Your task to perform on an android device: Go to ESPN.com Image 0: 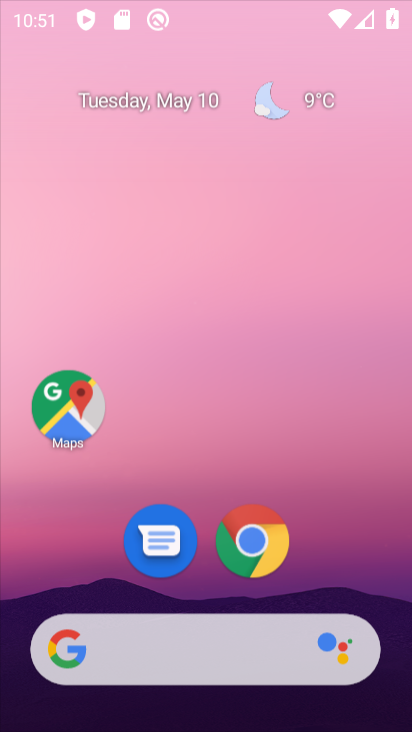
Step 0: click (282, 139)
Your task to perform on an android device: Go to ESPN.com Image 1: 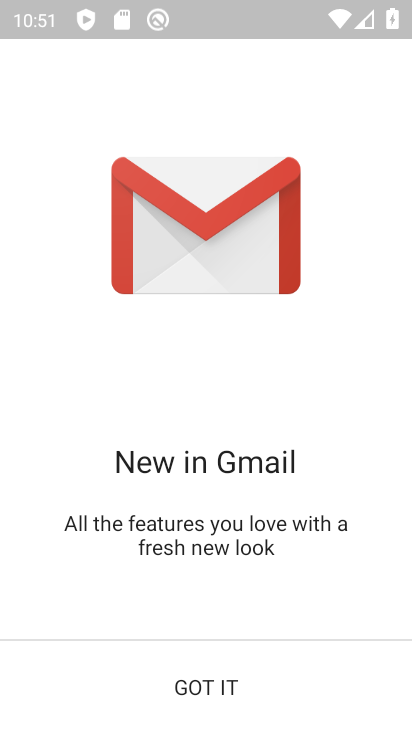
Step 1: press home button
Your task to perform on an android device: Go to ESPN.com Image 2: 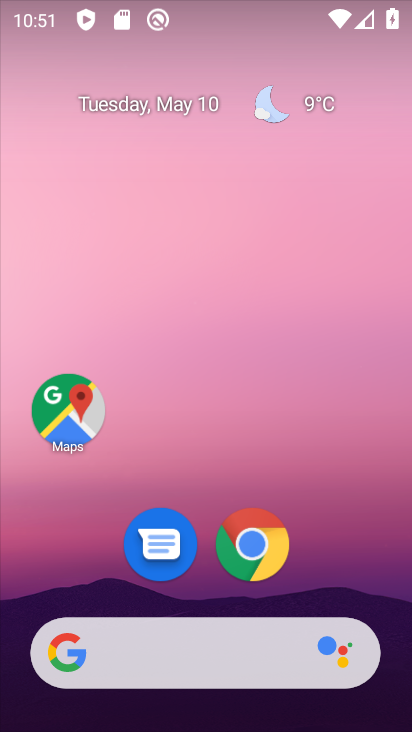
Step 2: click (246, 567)
Your task to perform on an android device: Go to ESPN.com Image 3: 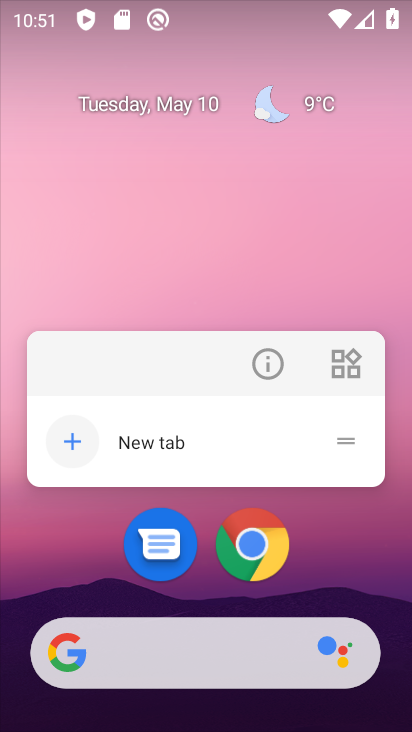
Step 3: click (239, 556)
Your task to perform on an android device: Go to ESPN.com Image 4: 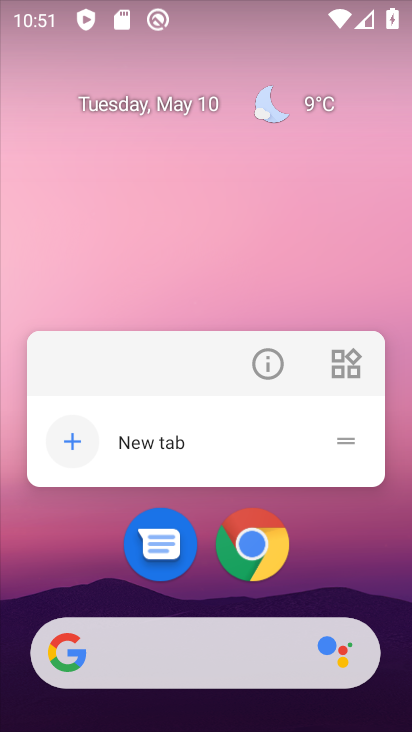
Step 4: click (259, 552)
Your task to perform on an android device: Go to ESPN.com Image 5: 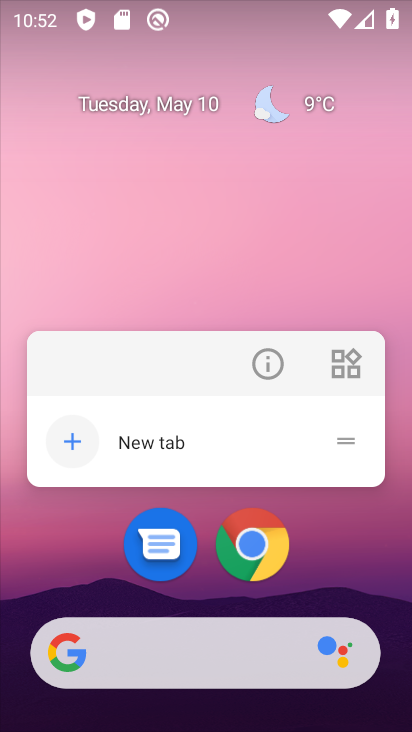
Step 5: click (252, 552)
Your task to perform on an android device: Go to ESPN.com Image 6: 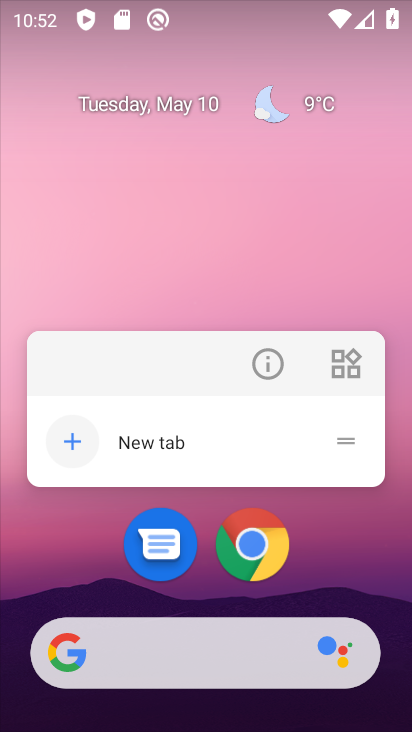
Step 6: click (247, 533)
Your task to perform on an android device: Go to ESPN.com Image 7: 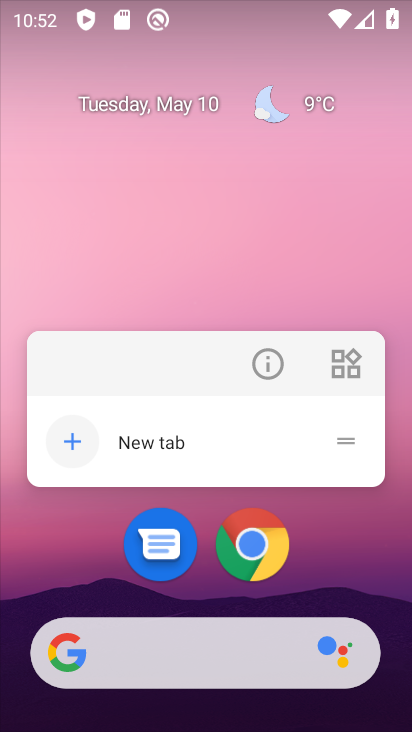
Step 7: click (229, 553)
Your task to perform on an android device: Go to ESPN.com Image 8: 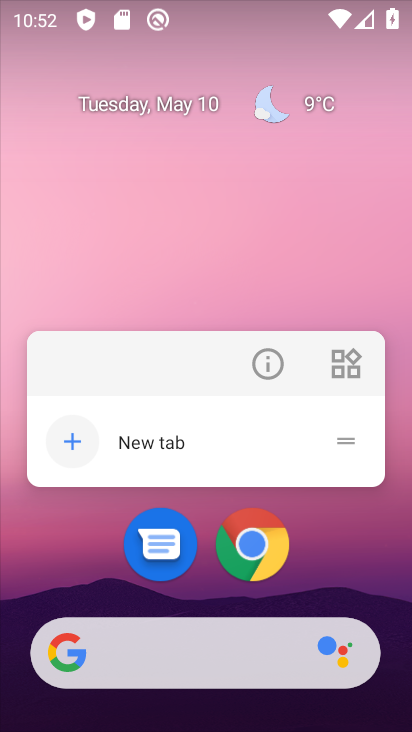
Step 8: click (238, 553)
Your task to perform on an android device: Go to ESPN.com Image 9: 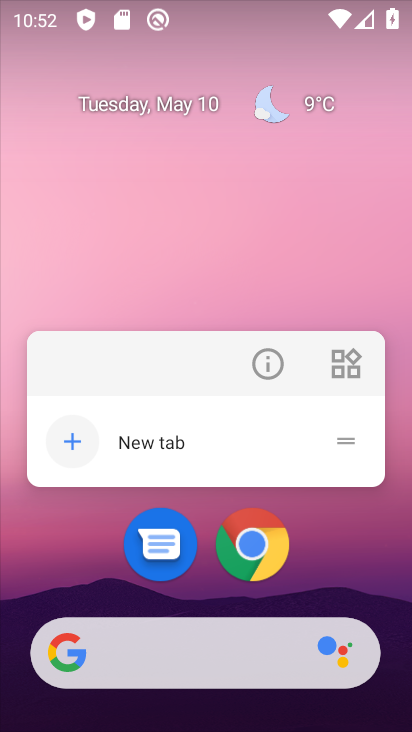
Step 9: click (251, 558)
Your task to perform on an android device: Go to ESPN.com Image 10: 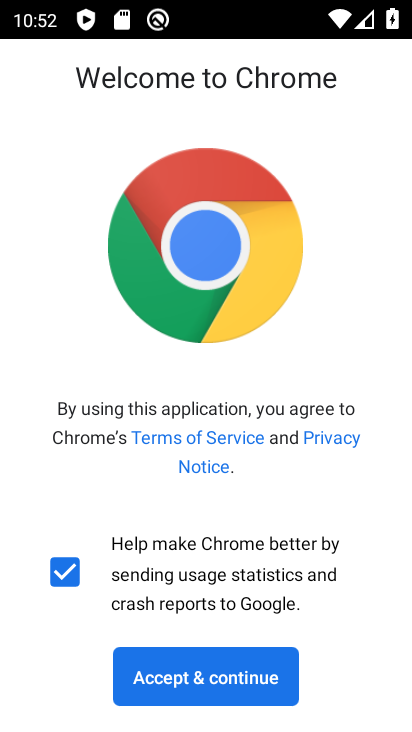
Step 10: click (257, 668)
Your task to perform on an android device: Go to ESPN.com Image 11: 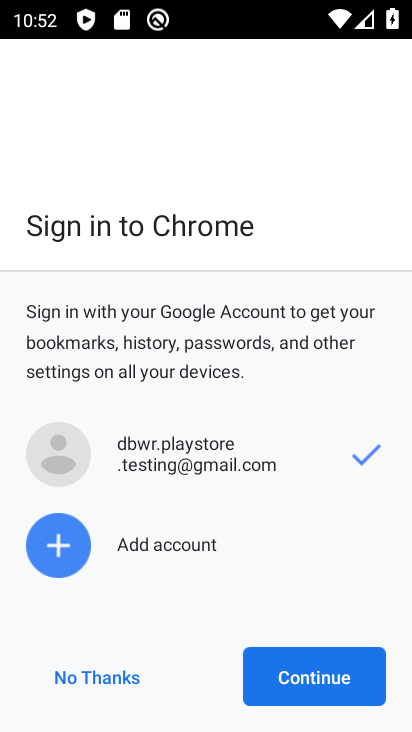
Step 11: click (302, 675)
Your task to perform on an android device: Go to ESPN.com Image 12: 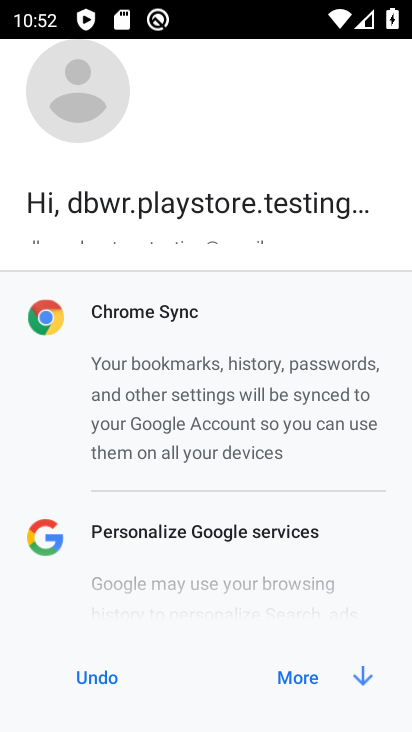
Step 12: click (291, 675)
Your task to perform on an android device: Go to ESPN.com Image 13: 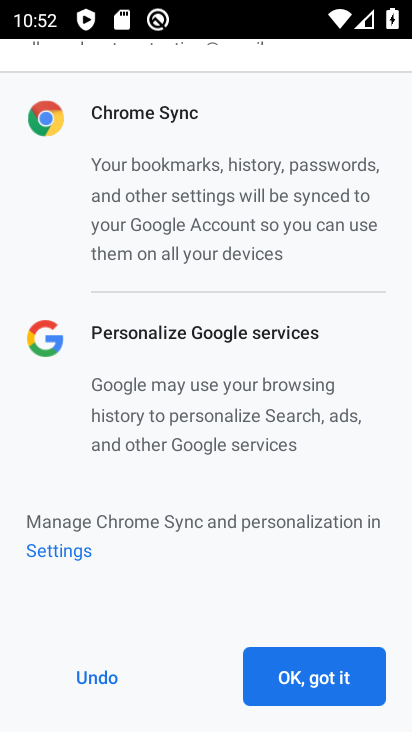
Step 13: click (288, 677)
Your task to perform on an android device: Go to ESPN.com Image 14: 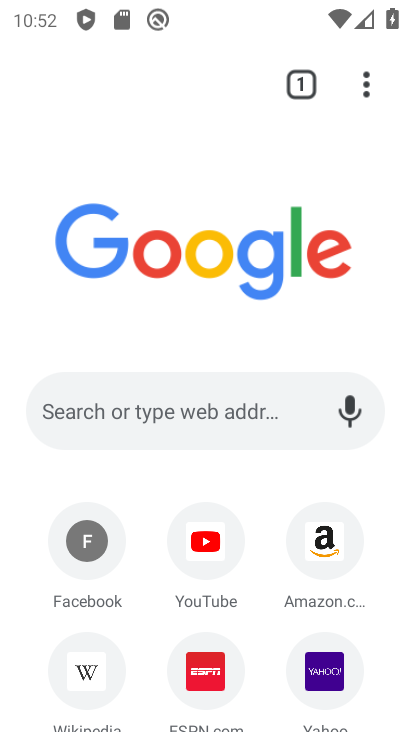
Step 14: click (226, 688)
Your task to perform on an android device: Go to ESPN.com Image 15: 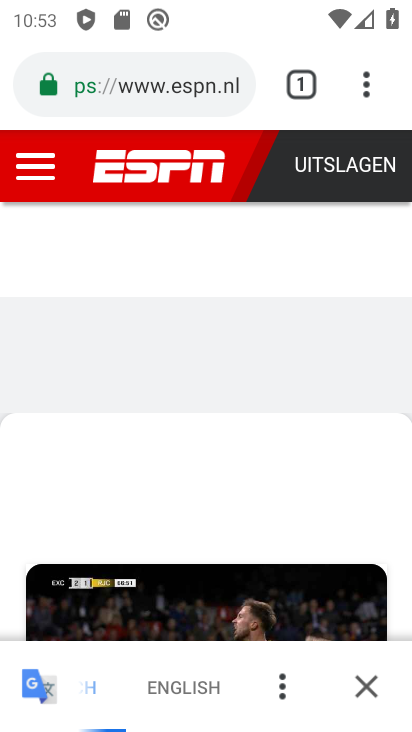
Step 15: click (364, 666)
Your task to perform on an android device: Go to ESPN.com Image 16: 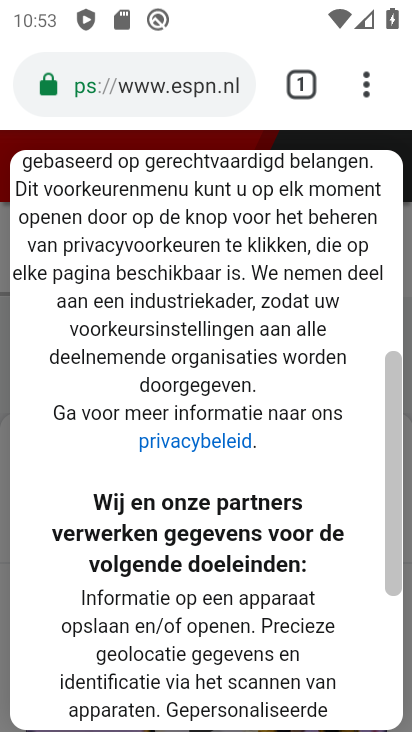
Step 16: drag from (275, 665) to (359, 352)
Your task to perform on an android device: Go to ESPN.com Image 17: 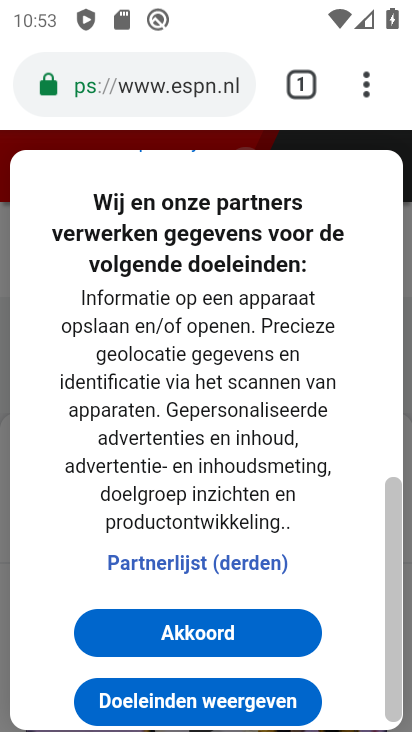
Step 17: click (272, 637)
Your task to perform on an android device: Go to ESPN.com Image 18: 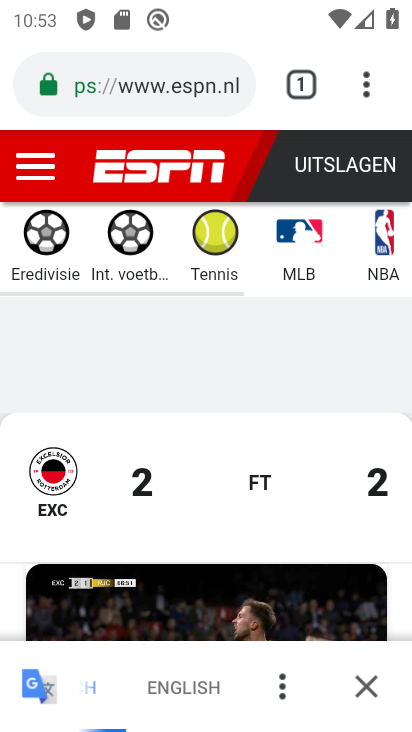
Step 18: task complete